Your task to perform on an android device: change the clock display to analog Image 0: 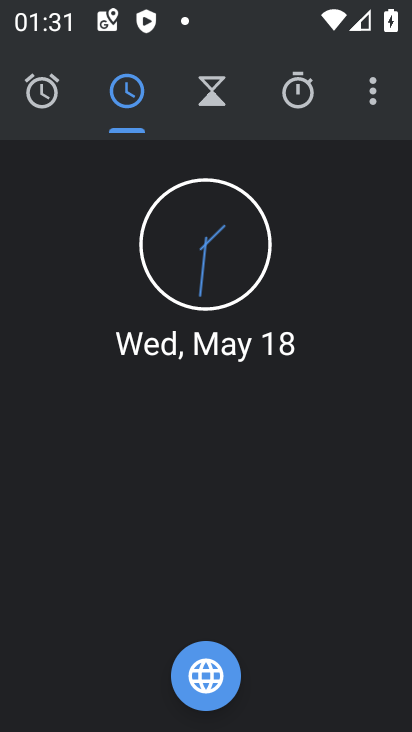
Step 0: click (371, 95)
Your task to perform on an android device: change the clock display to analog Image 1: 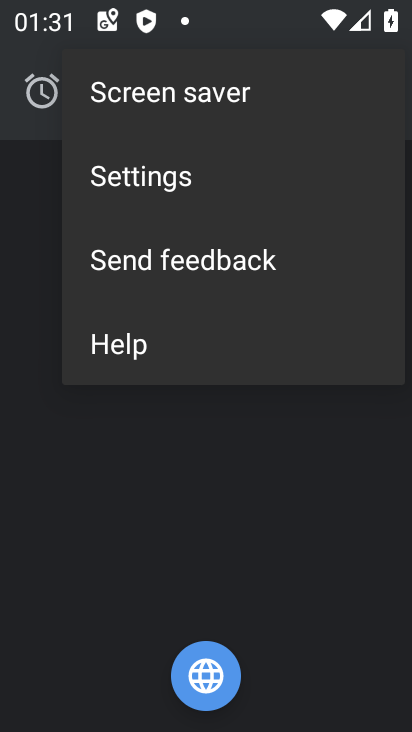
Step 1: click (134, 175)
Your task to perform on an android device: change the clock display to analog Image 2: 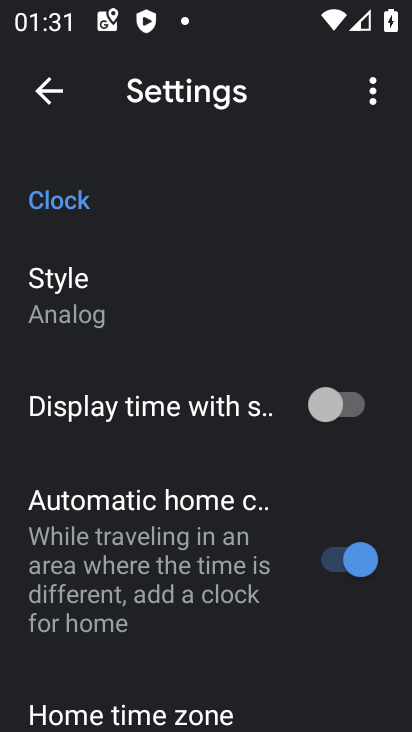
Step 2: task complete